Your task to perform on an android device: Go to Amazon Image 0: 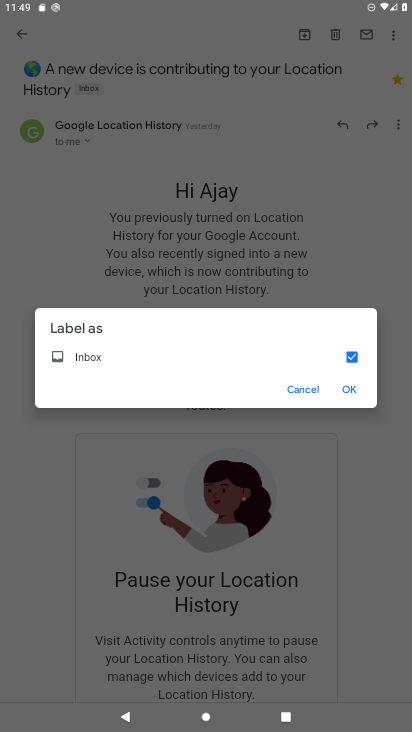
Step 0: press home button
Your task to perform on an android device: Go to Amazon Image 1: 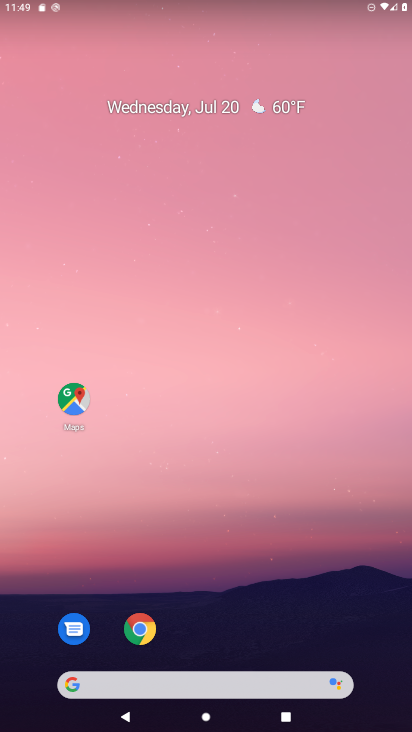
Step 1: click (149, 635)
Your task to perform on an android device: Go to Amazon Image 2: 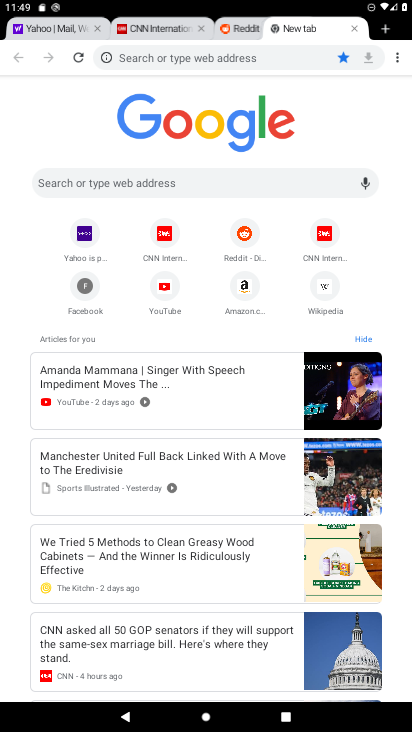
Step 2: click (240, 299)
Your task to perform on an android device: Go to Amazon Image 3: 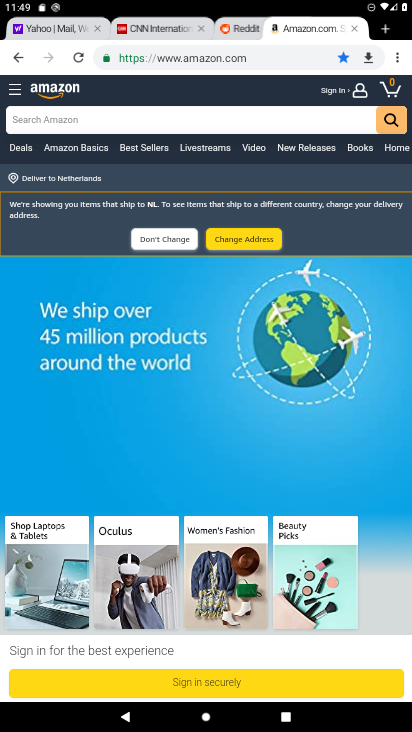
Step 3: task complete